Your task to perform on an android device: change text size in settings app Image 0: 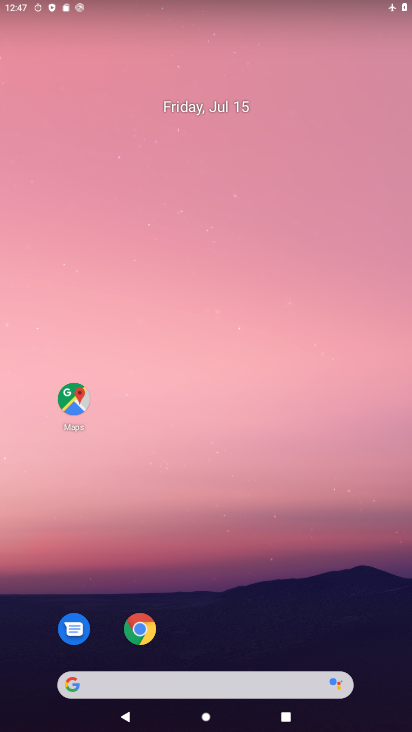
Step 0: drag from (198, 615) to (202, 124)
Your task to perform on an android device: change text size in settings app Image 1: 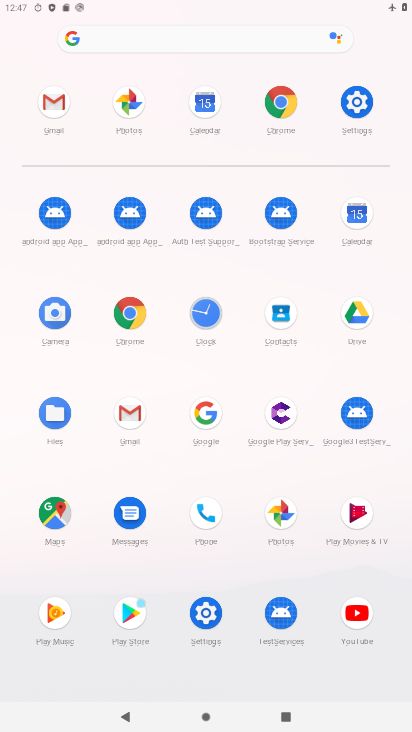
Step 1: click (208, 611)
Your task to perform on an android device: change text size in settings app Image 2: 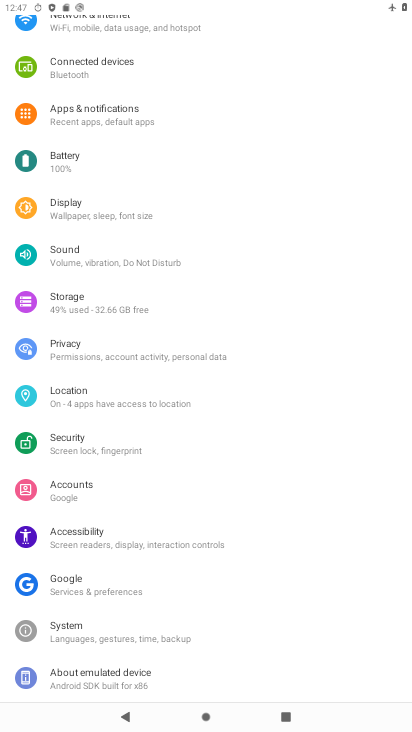
Step 2: click (83, 210)
Your task to perform on an android device: change text size in settings app Image 3: 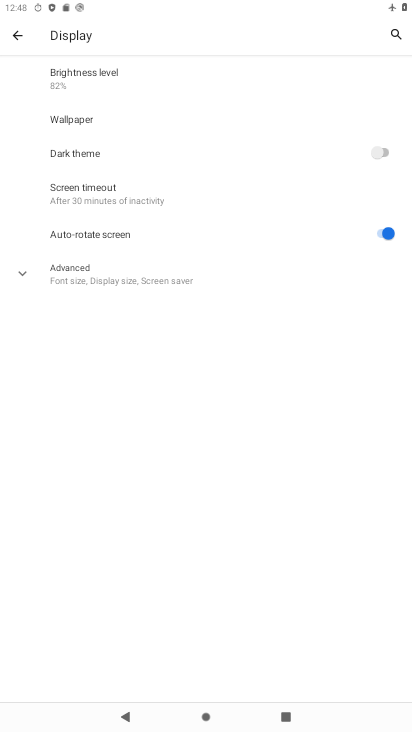
Step 3: click (93, 277)
Your task to perform on an android device: change text size in settings app Image 4: 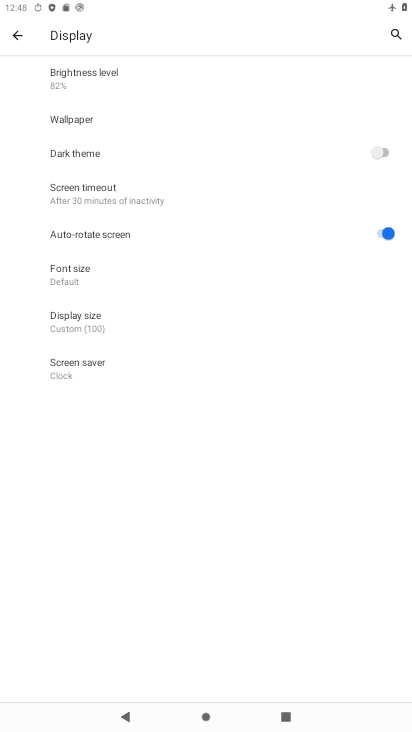
Step 4: click (73, 278)
Your task to perform on an android device: change text size in settings app Image 5: 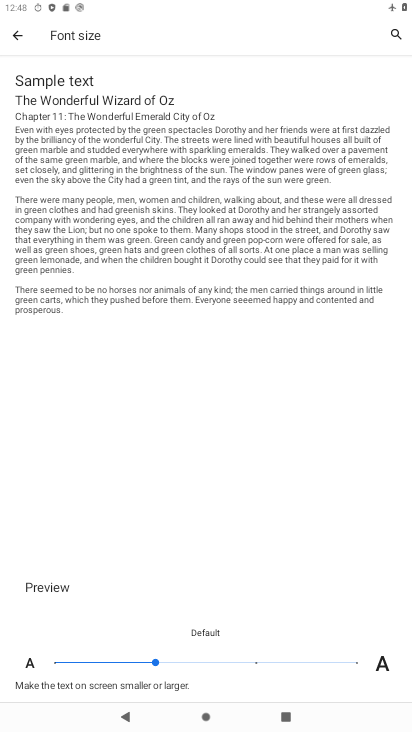
Step 5: click (256, 663)
Your task to perform on an android device: change text size in settings app Image 6: 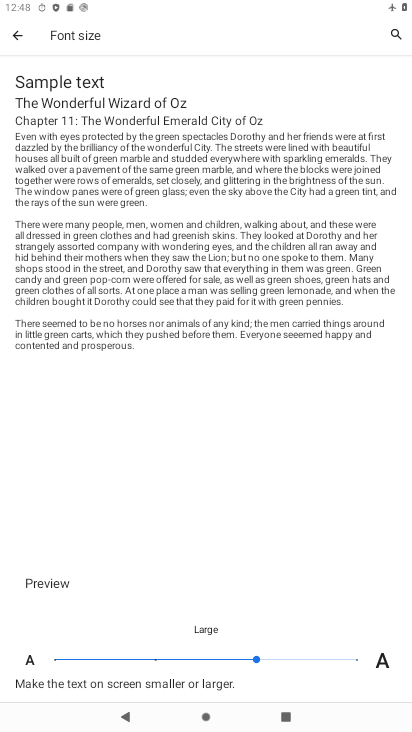
Step 6: task complete